Your task to perform on an android device: open a bookmark in the chrome app Image 0: 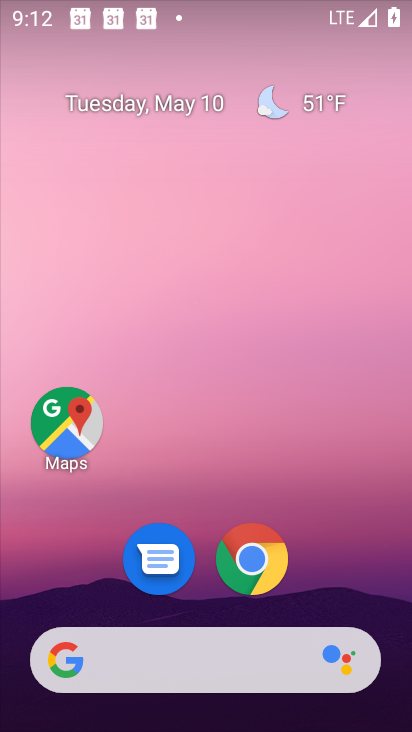
Step 0: click (253, 562)
Your task to perform on an android device: open a bookmark in the chrome app Image 1: 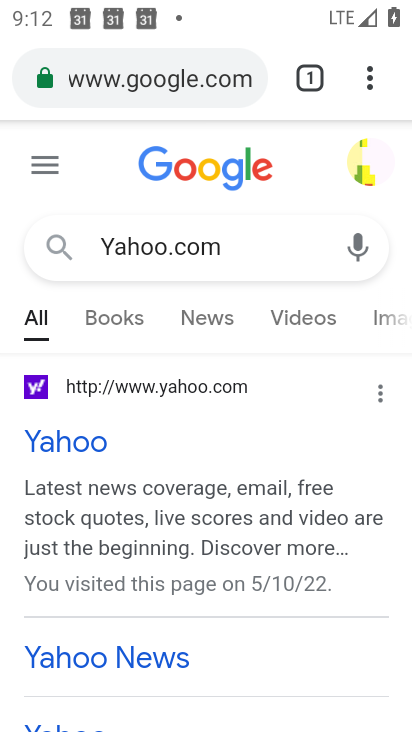
Step 1: click (371, 79)
Your task to perform on an android device: open a bookmark in the chrome app Image 2: 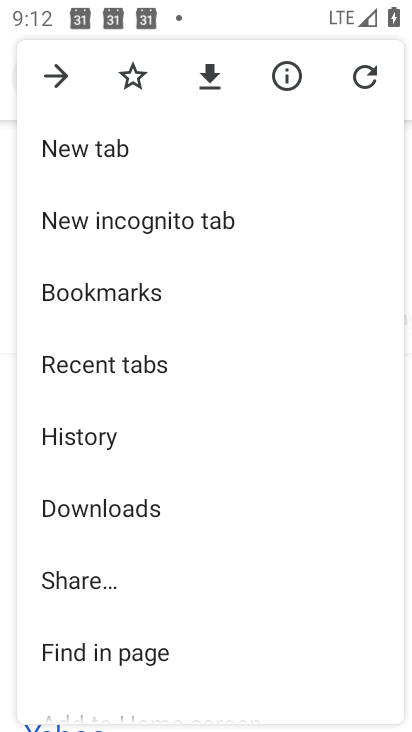
Step 2: click (98, 287)
Your task to perform on an android device: open a bookmark in the chrome app Image 3: 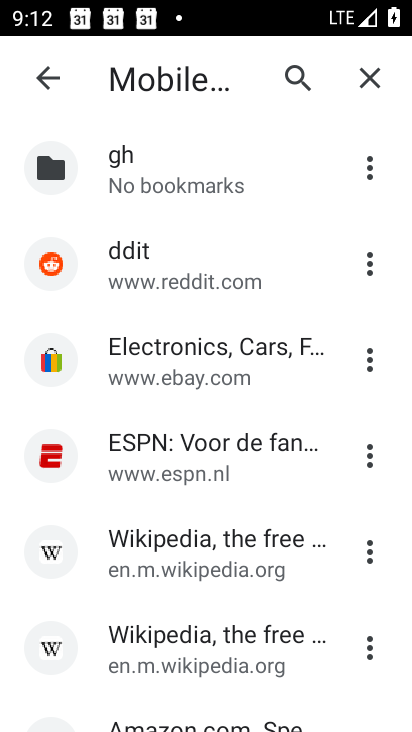
Step 3: task complete